Your task to perform on an android device: read, delete, or share a saved page in the chrome app Image 0: 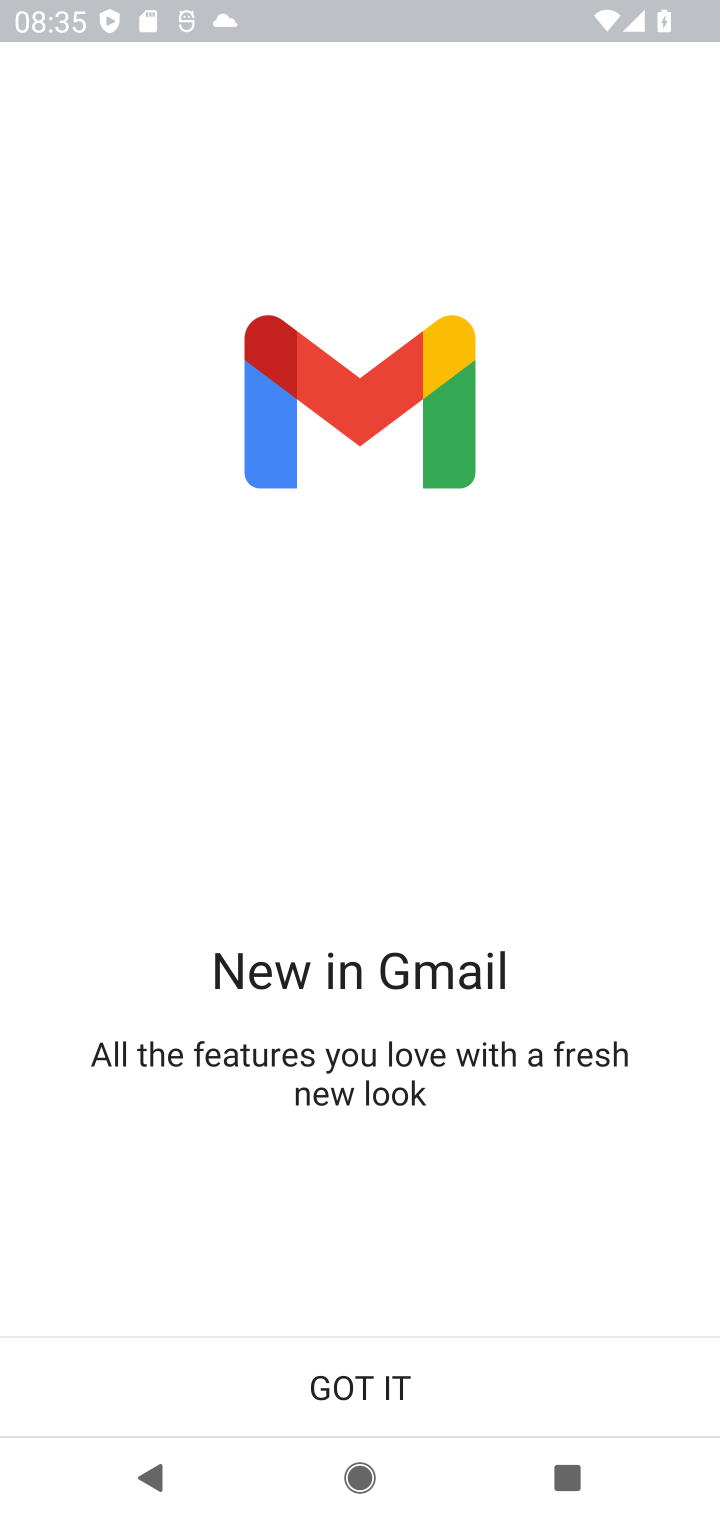
Step 0: press home button
Your task to perform on an android device: read, delete, or share a saved page in the chrome app Image 1: 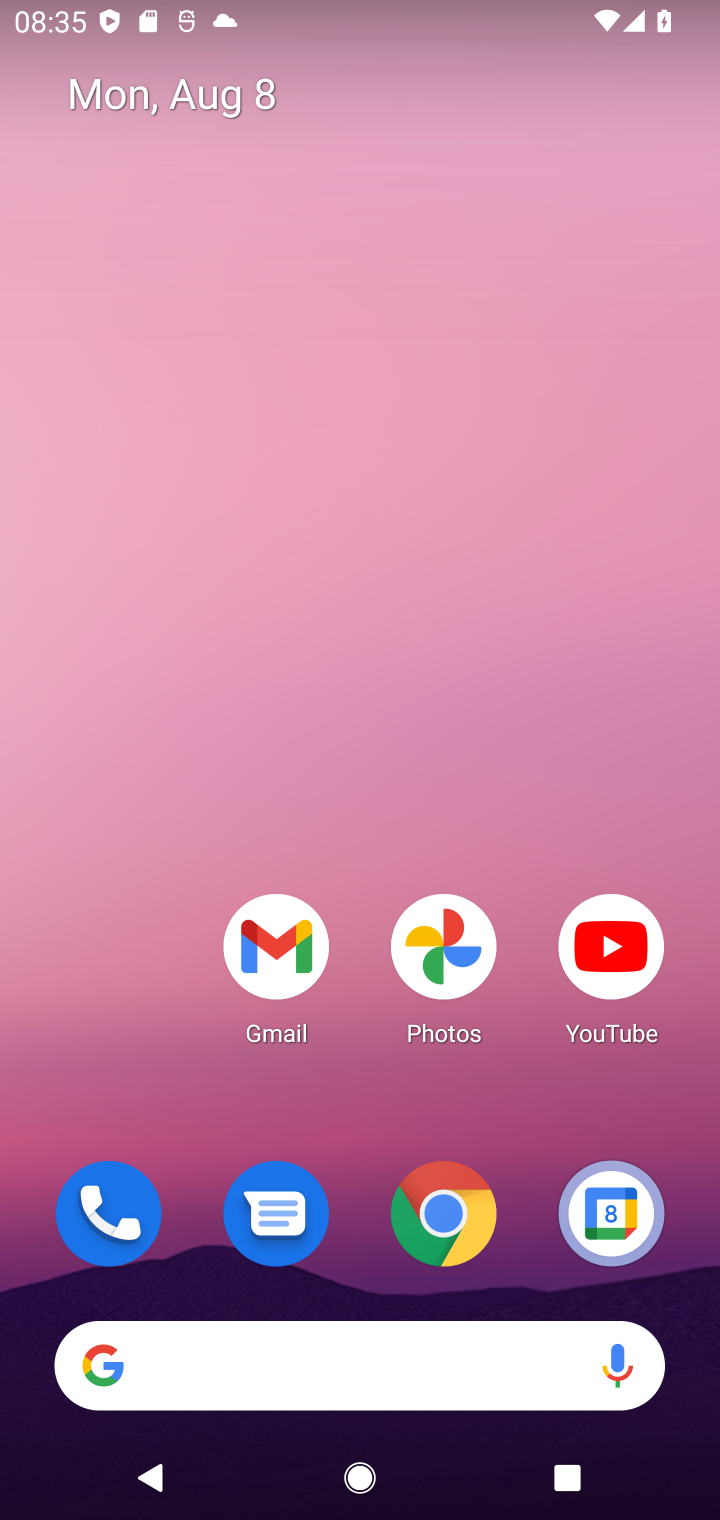
Step 1: drag from (347, 1071) to (293, 298)
Your task to perform on an android device: read, delete, or share a saved page in the chrome app Image 2: 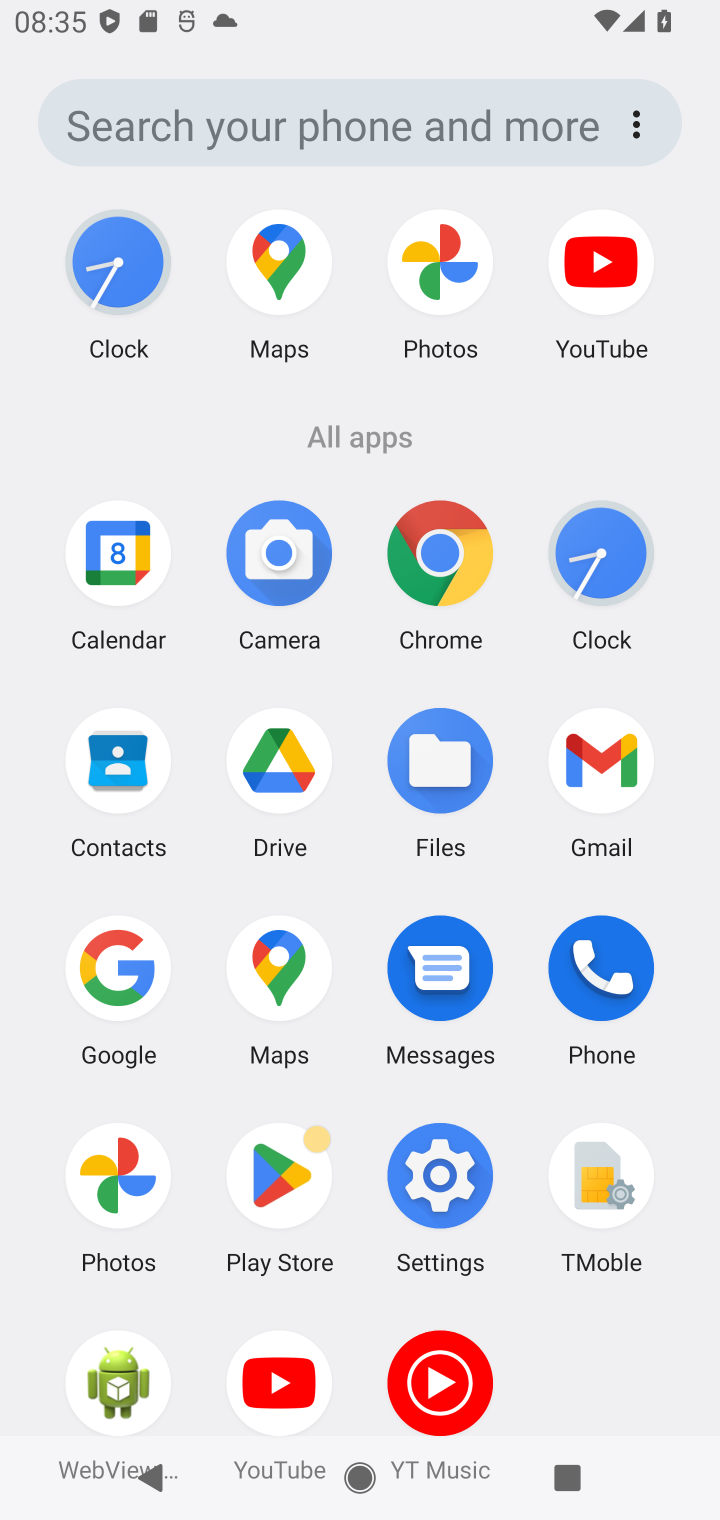
Step 2: click (421, 560)
Your task to perform on an android device: read, delete, or share a saved page in the chrome app Image 3: 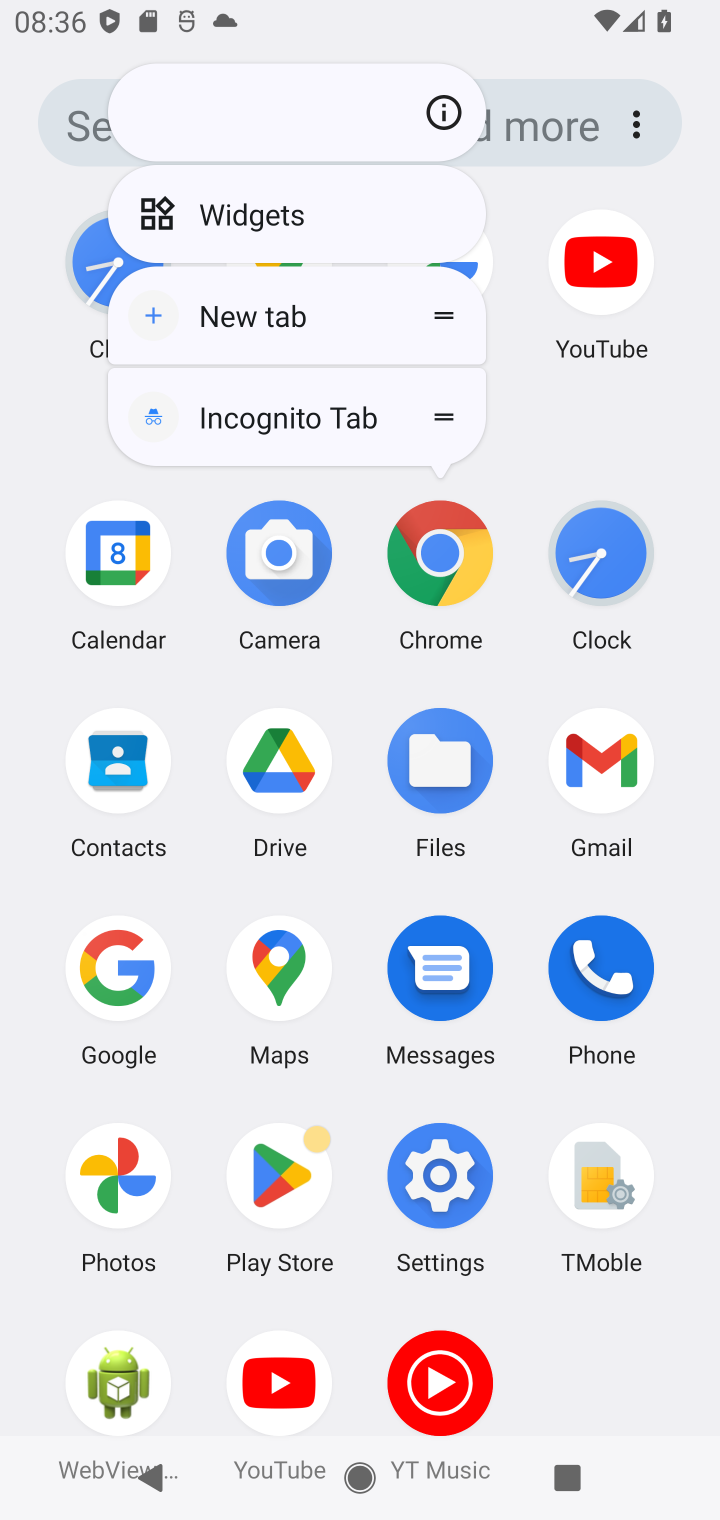
Step 3: click (432, 577)
Your task to perform on an android device: read, delete, or share a saved page in the chrome app Image 4: 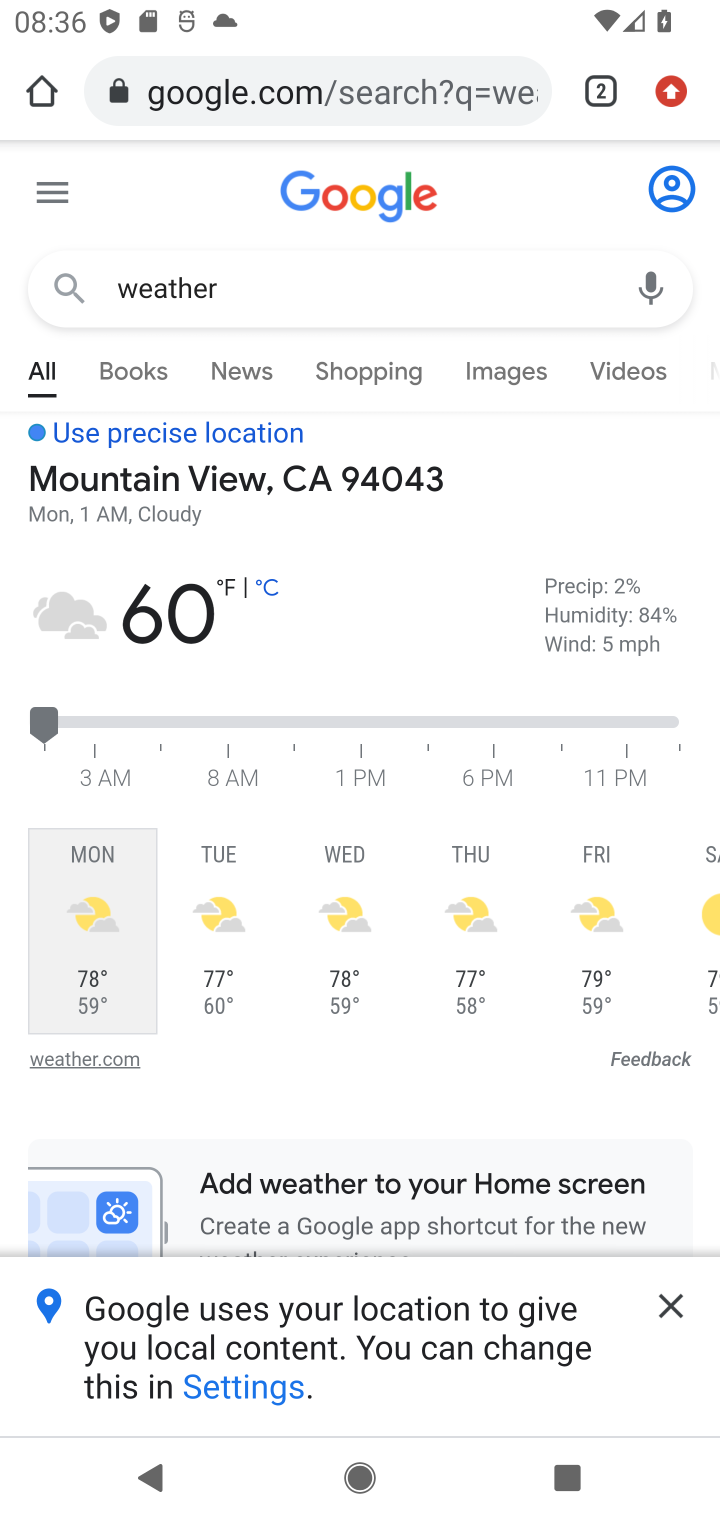
Step 4: task complete